Your task to perform on an android device: turn notification dots on Image 0: 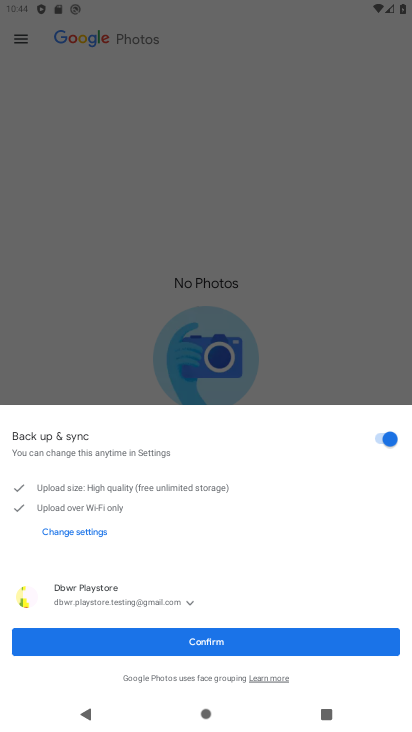
Step 0: press home button
Your task to perform on an android device: turn notification dots on Image 1: 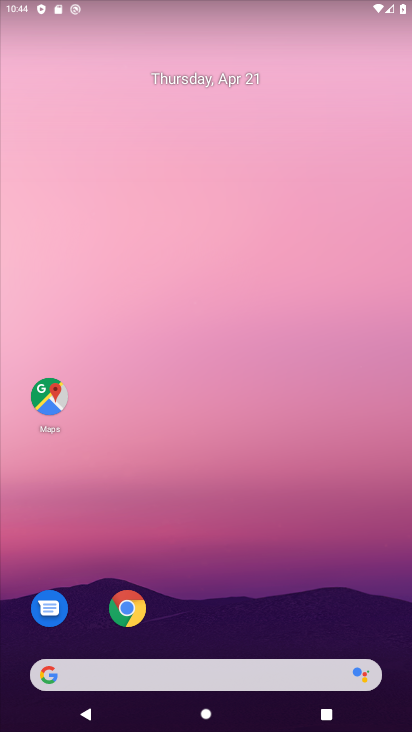
Step 1: drag from (189, 590) to (118, 86)
Your task to perform on an android device: turn notification dots on Image 2: 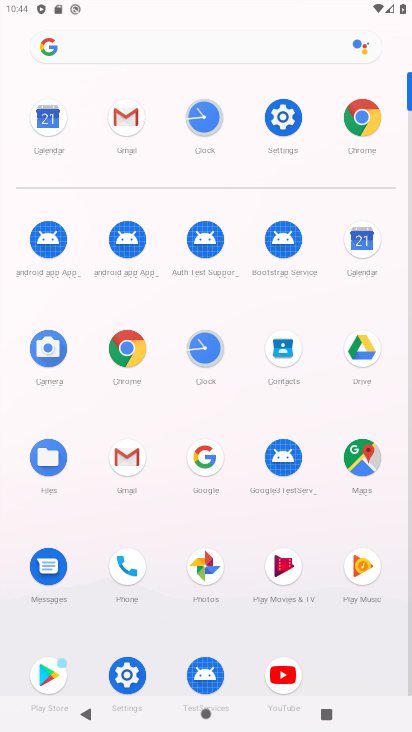
Step 2: click (284, 115)
Your task to perform on an android device: turn notification dots on Image 3: 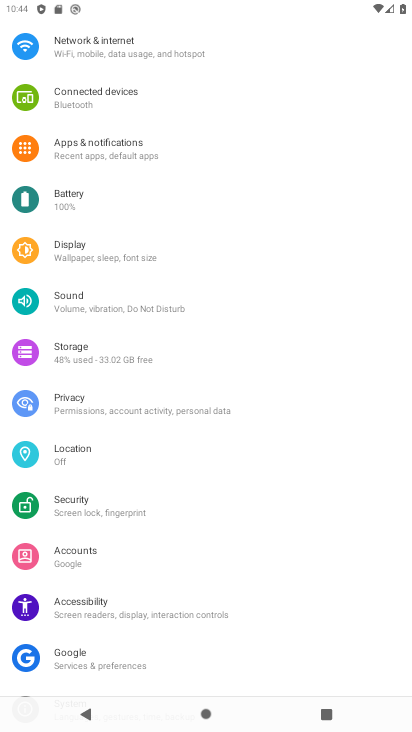
Step 3: click (102, 148)
Your task to perform on an android device: turn notification dots on Image 4: 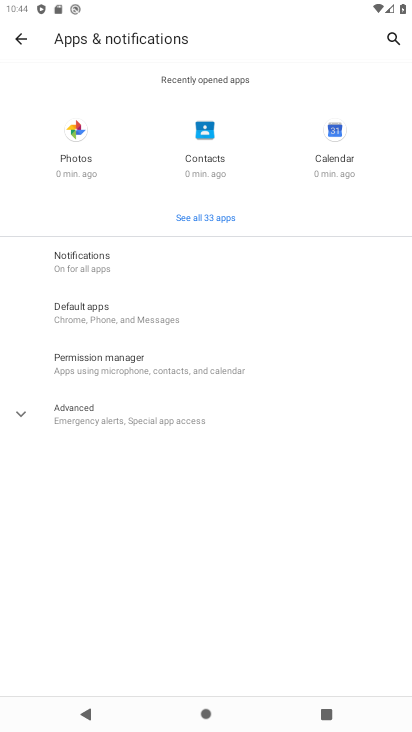
Step 4: click (76, 271)
Your task to perform on an android device: turn notification dots on Image 5: 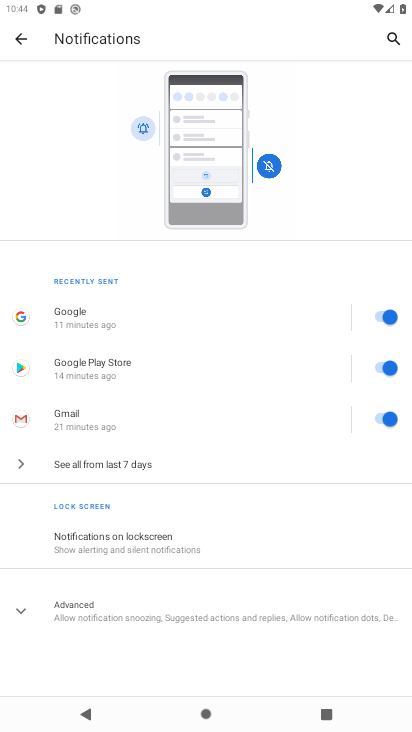
Step 5: click (108, 609)
Your task to perform on an android device: turn notification dots on Image 6: 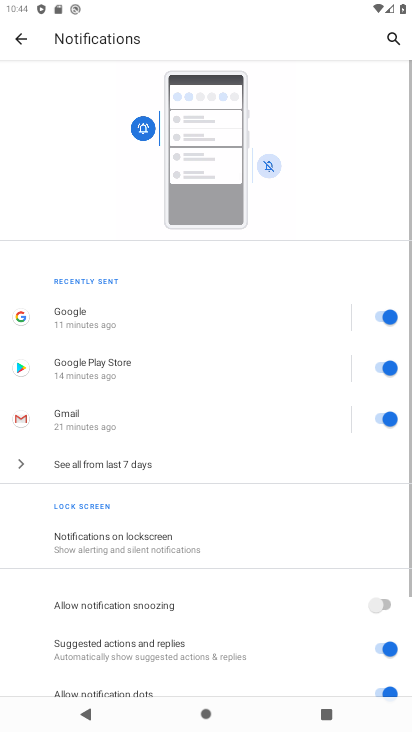
Step 6: task complete